Your task to perform on an android device: empty trash in google photos Image 0: 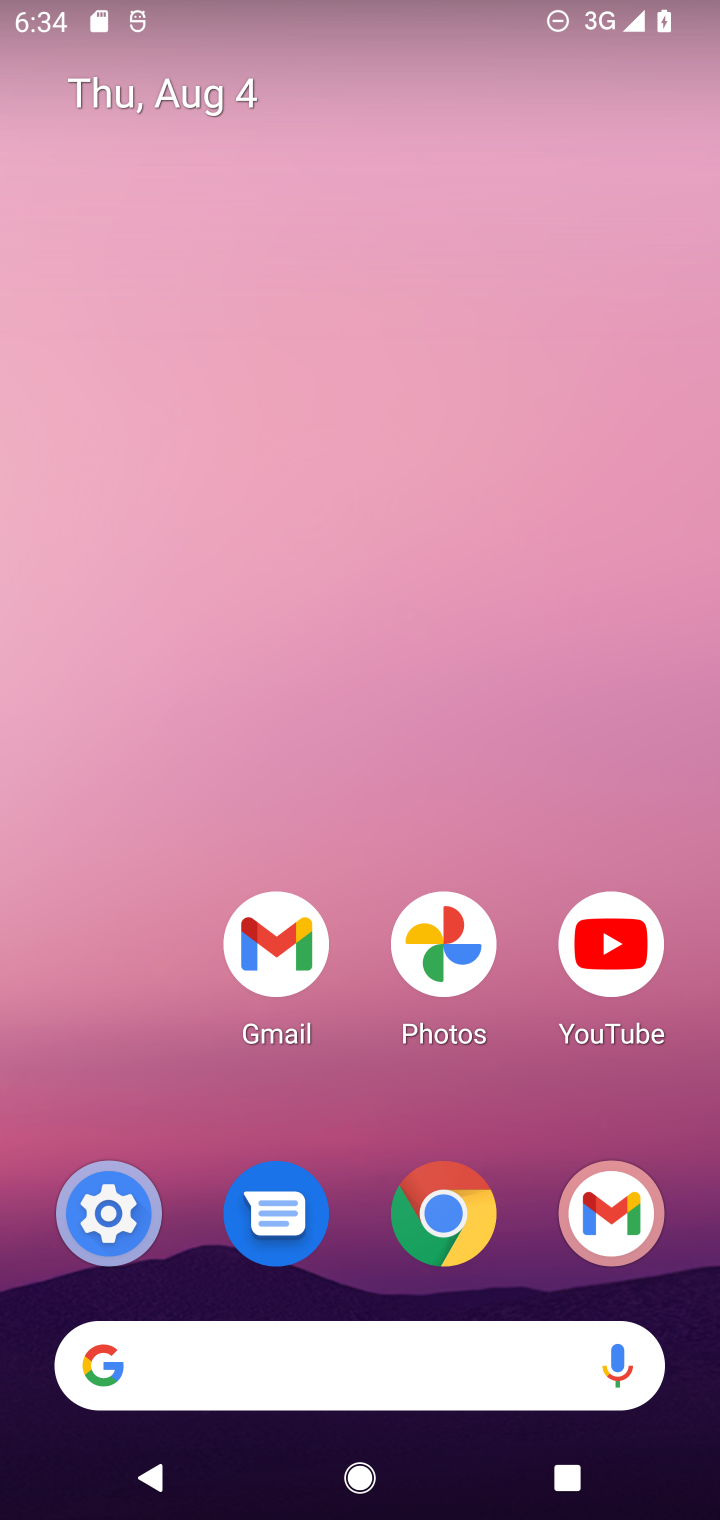
Step 0: drag from (156, 1105) to (117, 335)
Your task to perform on an android device: empty trash in google photos Image 1: 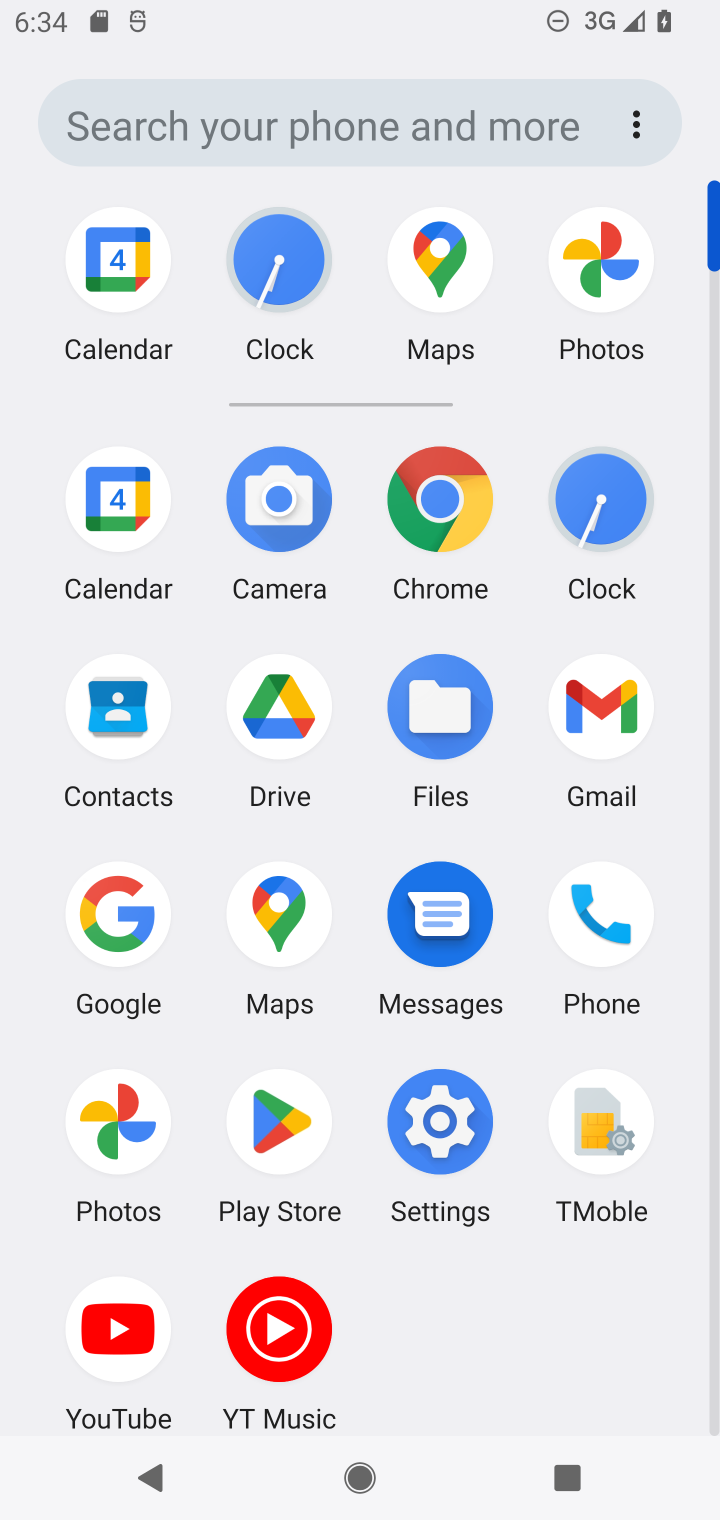
Step 1: click (113, 1131)
Your task to perform on an android device: empty trash in google photos Image 2: 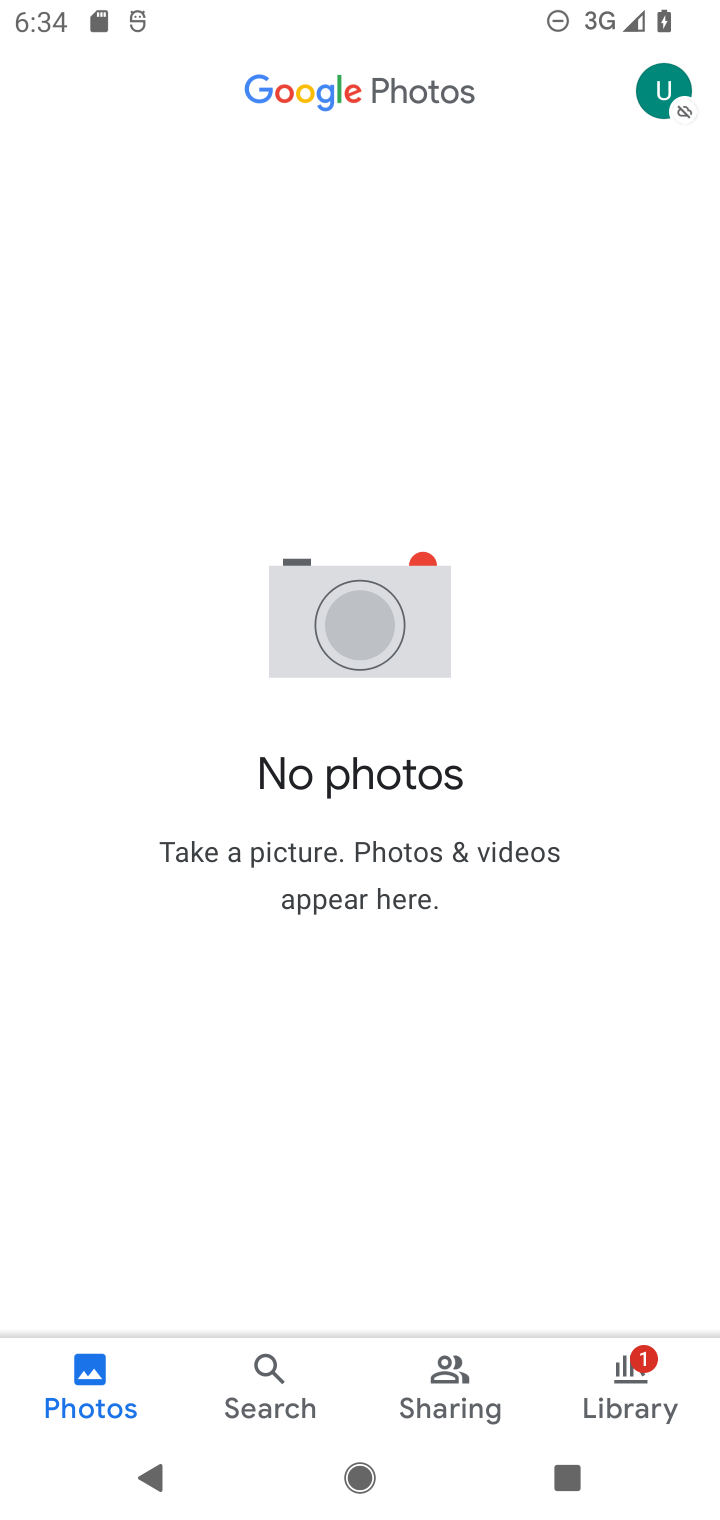
Step 2: click (641, 1378)
Your task to perform on an android device: empty trash in google photos Image 3: 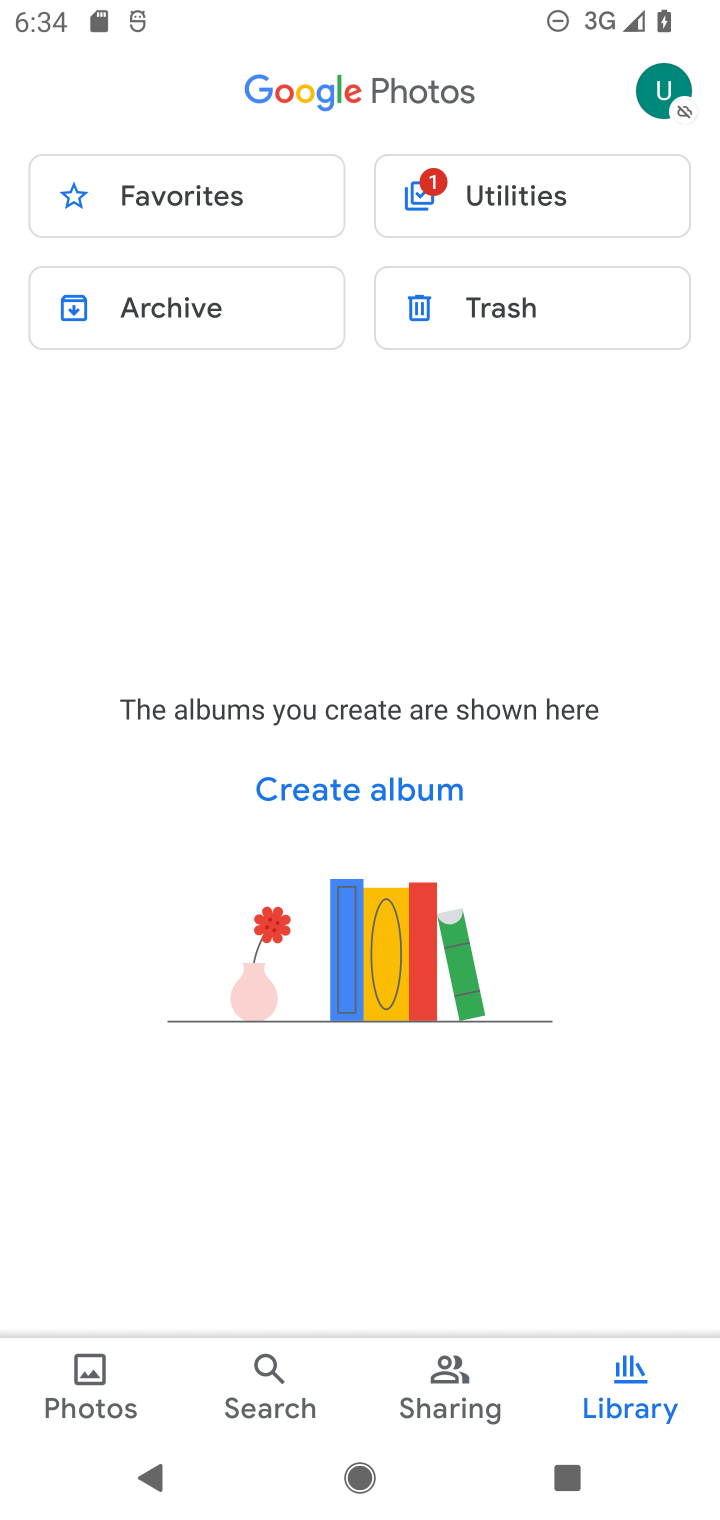
Step 3: click (524, 303)
Your task to perform on an android device: empty trash in google photos Image 4: 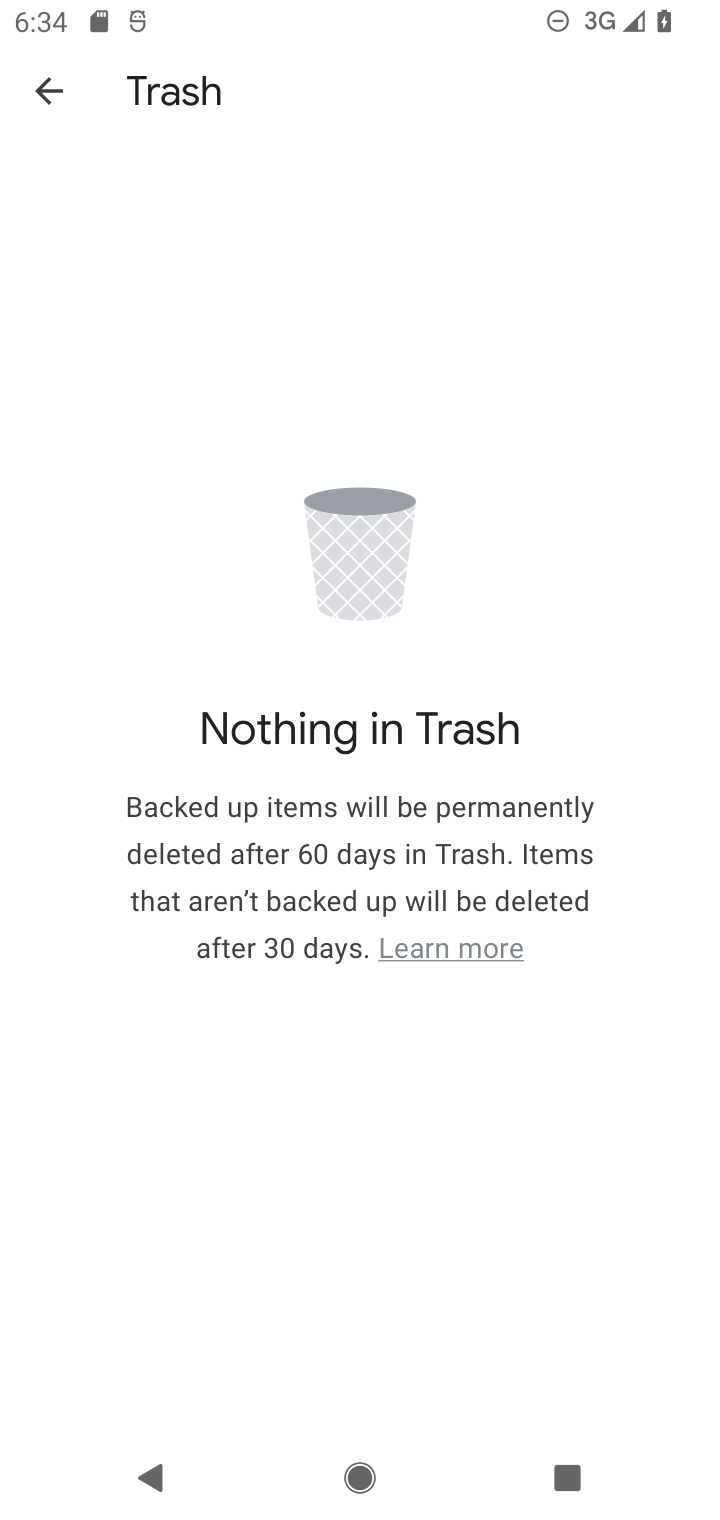
Step 4: task complete